Your task to perform on an android device: change the clock display to digital Image 0: 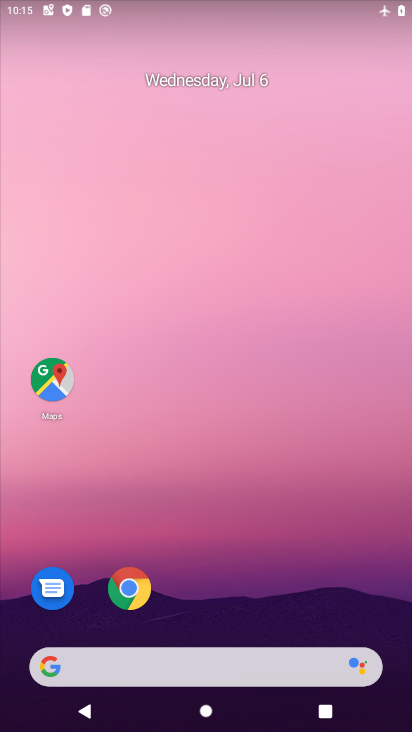
Step 0: drag from (268, 553) to (263, 165)
Your task to perform on an android device: change the clock display to digital Image 1: 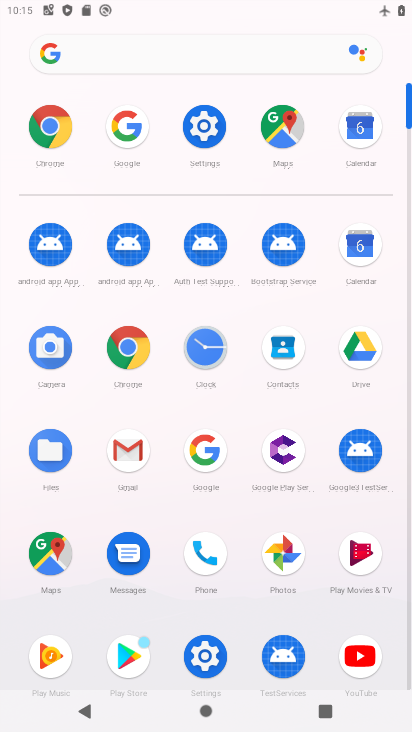
Step 1: click (200, 340)
Your task to perform on an android device: change the clock display to digital Image 2: 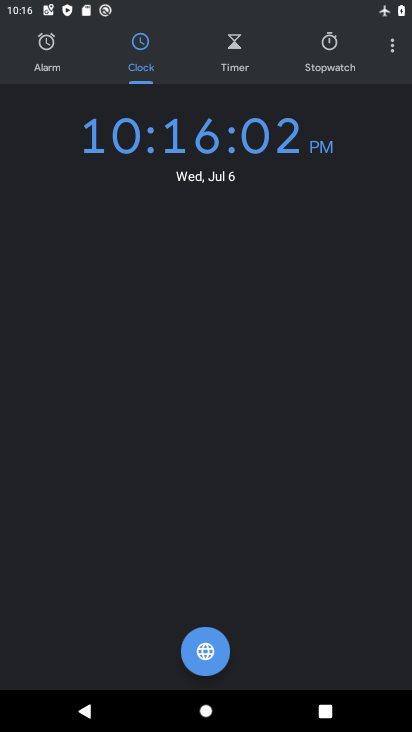
Step 2: click (388, 36)
Your task to perform on an android device: change the clock display to digital Image 3: 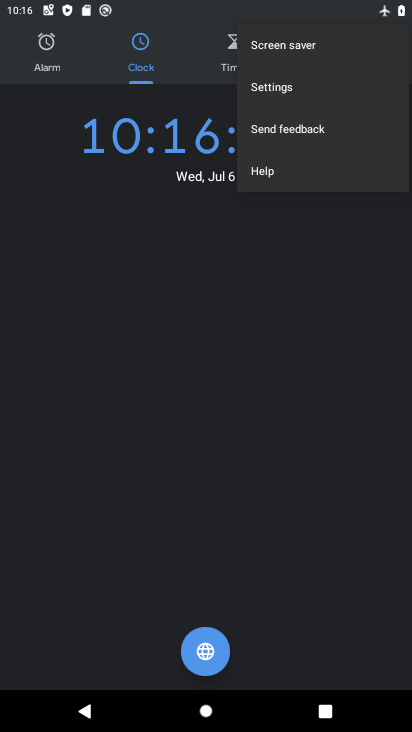
Step 3: click (285, 79)
Your task to perform on an android device: change the clock display to digital Image 4: 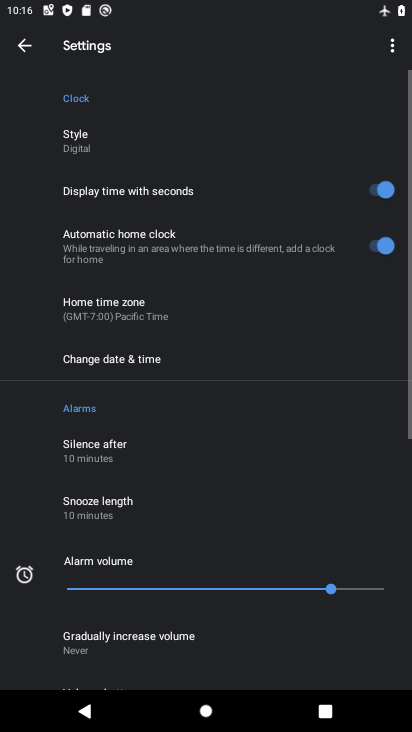
Step 4: click (97, 148)
Your task to perform on an android device: change the clock display to digital Image 5: 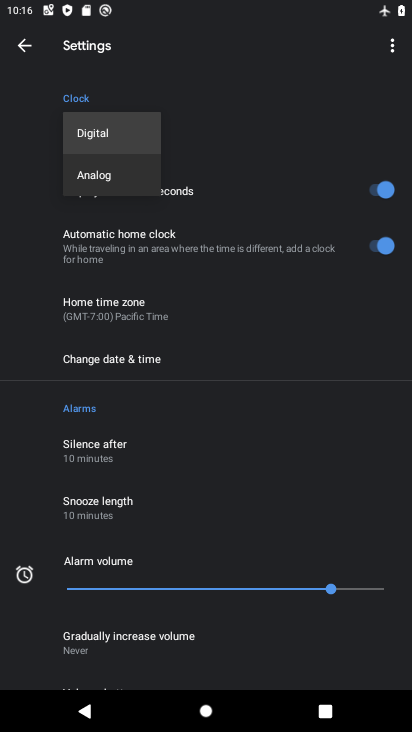
Step 5: click (107, 137)
Your task to perform on an android device: change the clock display to digital Image 6: 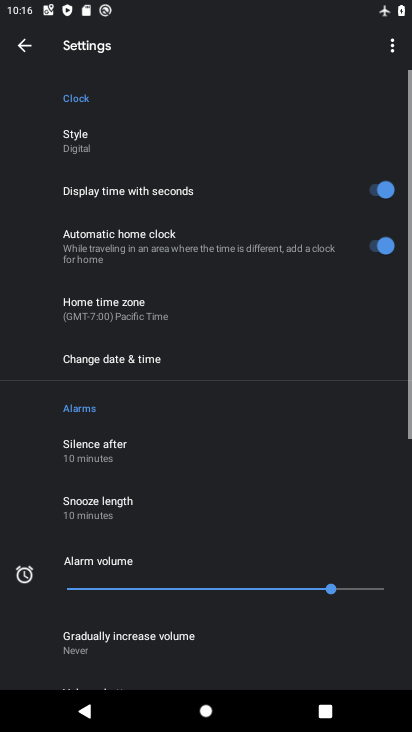
Step 6: task complete